Your task to perform on an android device: Open the web browser Image 0: 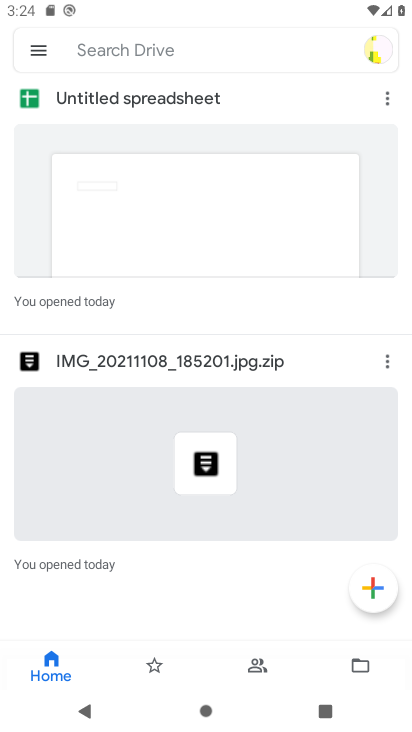
Step 0: press home button
Your task to perform on an android device: Open the web browser Image 1: 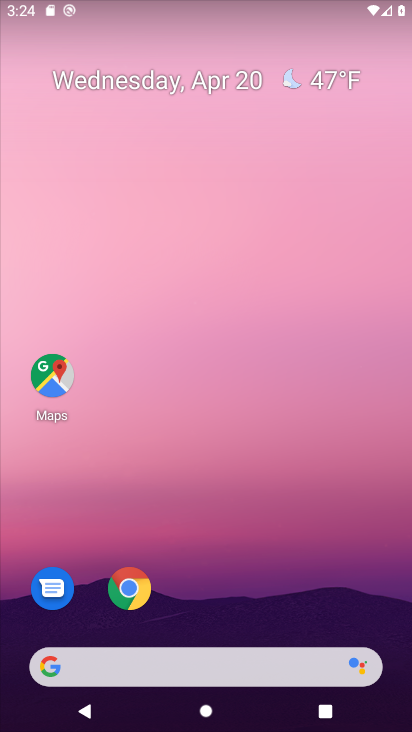
Step 1: click (132, 577)
Your task to perform on an android device: Open the web browser Image 2: 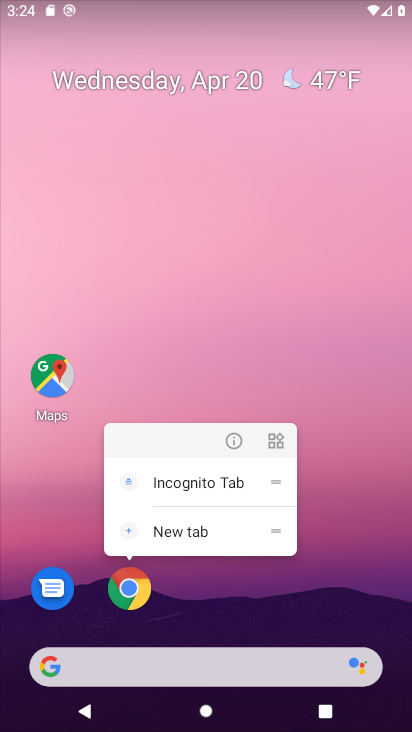
Step 2: click (132, 577)
Your task to perform on an android device: Open the web browser Image 3: 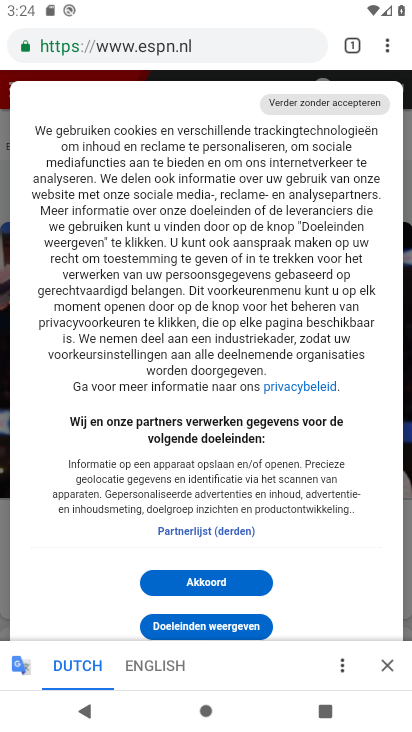
Step 3: task complete